Your task to perform on an android device: turn pop-ups on in chrome Image 0: 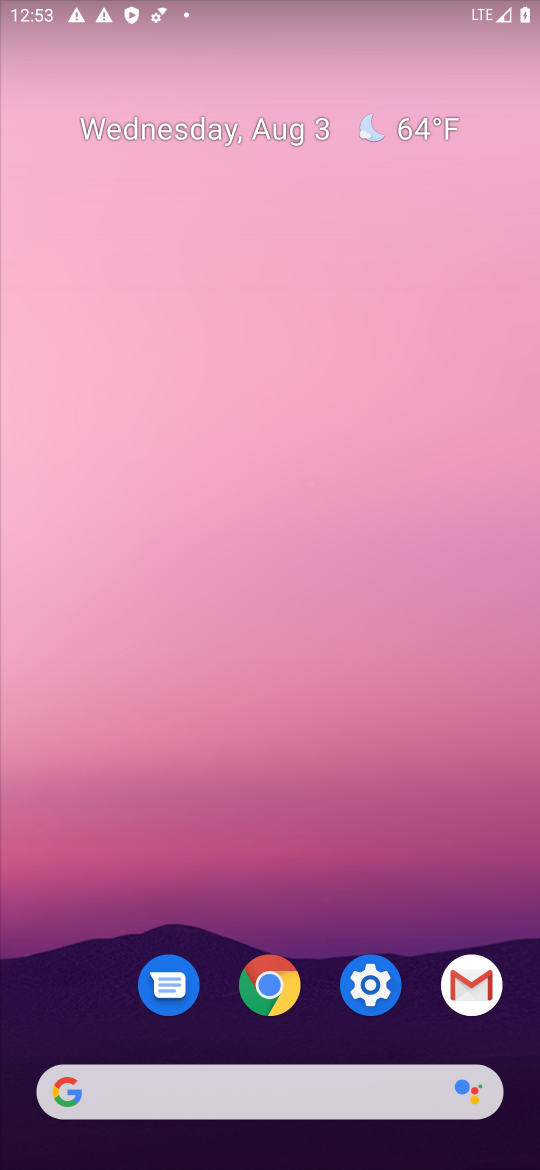
Step 0: press home button
Your task to perform on an android device: turn pop-ups on in chrome Image 1: 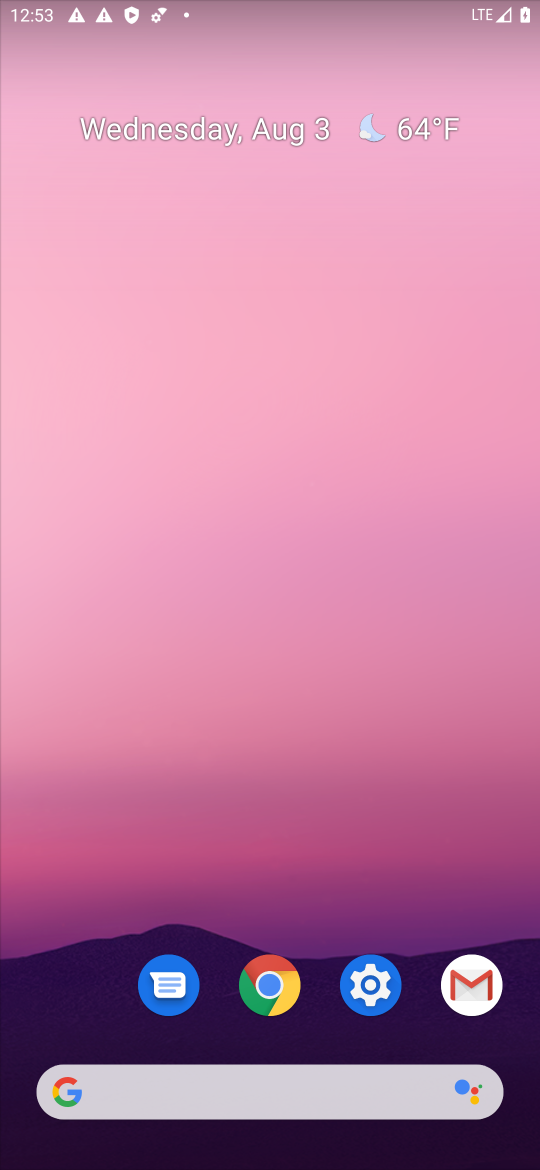
Step 1: click (265, 998)
Your task to perform on an android device: turn pop-ups on in chrome Image 2: 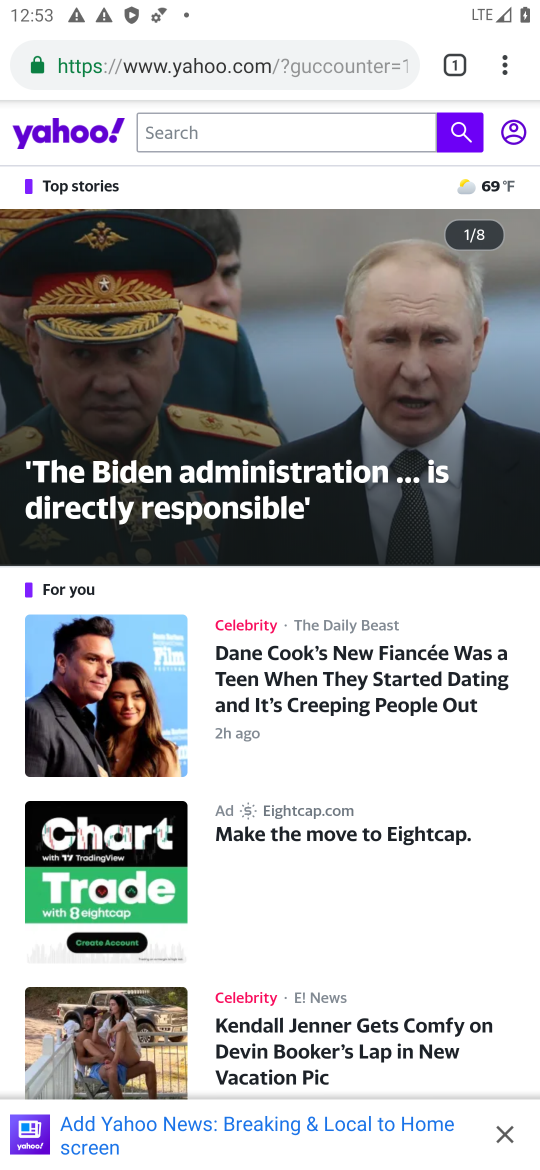
Step 2: click (499, 65)
Your task to perform on an android device: turn pop-ups on in chrome Image 3: 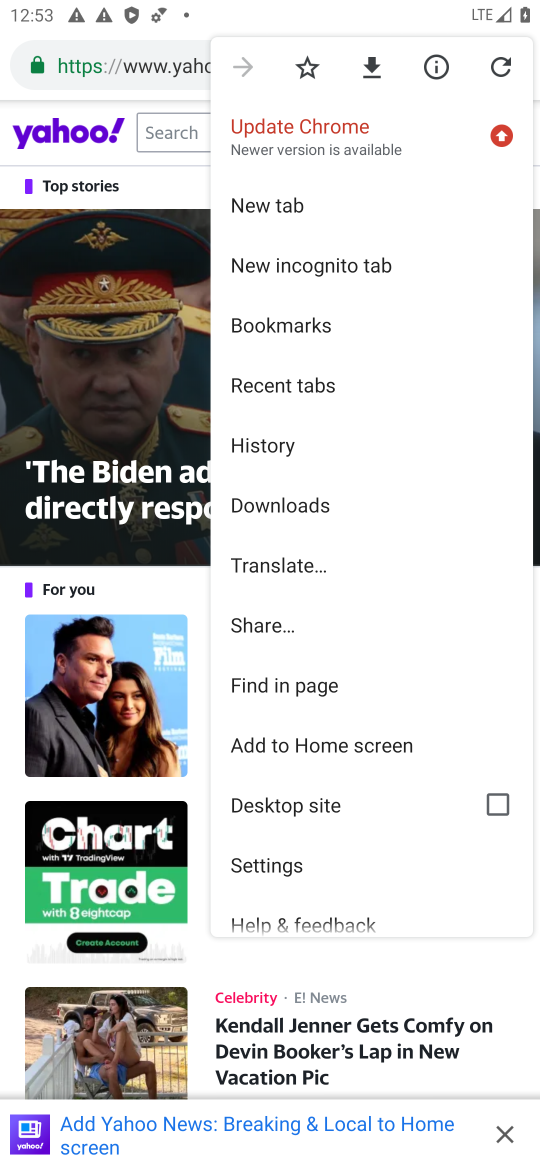
Step 3: click (266, 860)
Your task to perform on an android device: turn pop-ups on in chrome Image 4: 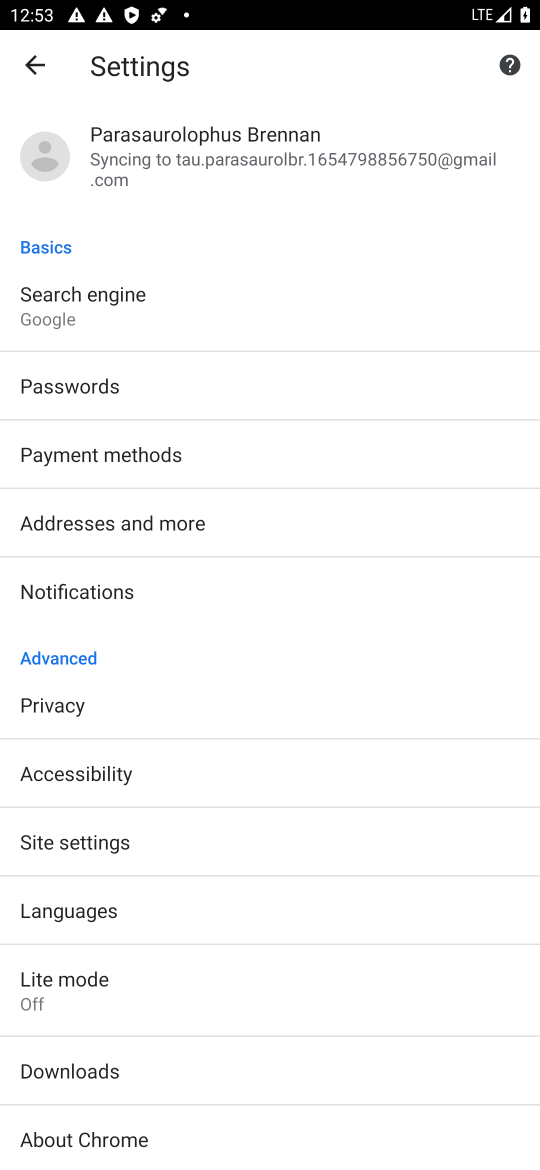
Step 4: click (84, 854)
Your task to perform on an android device: turn pop-ups on in chrome Image 5: 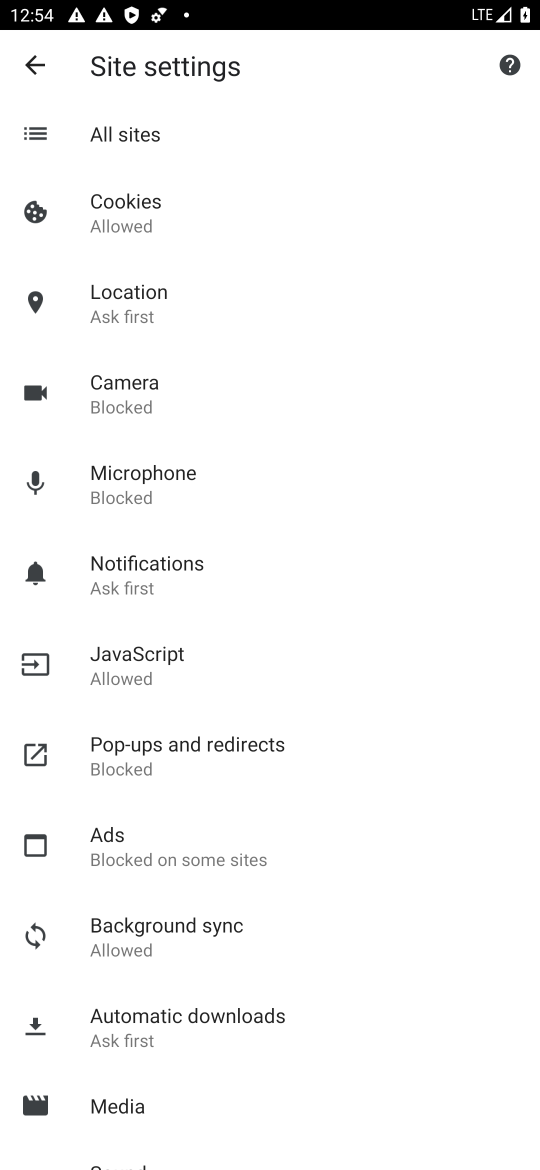
Step 5: click (195, 761)
Your task to perform on an android device: turn pop-ups on in chrome Image 6: 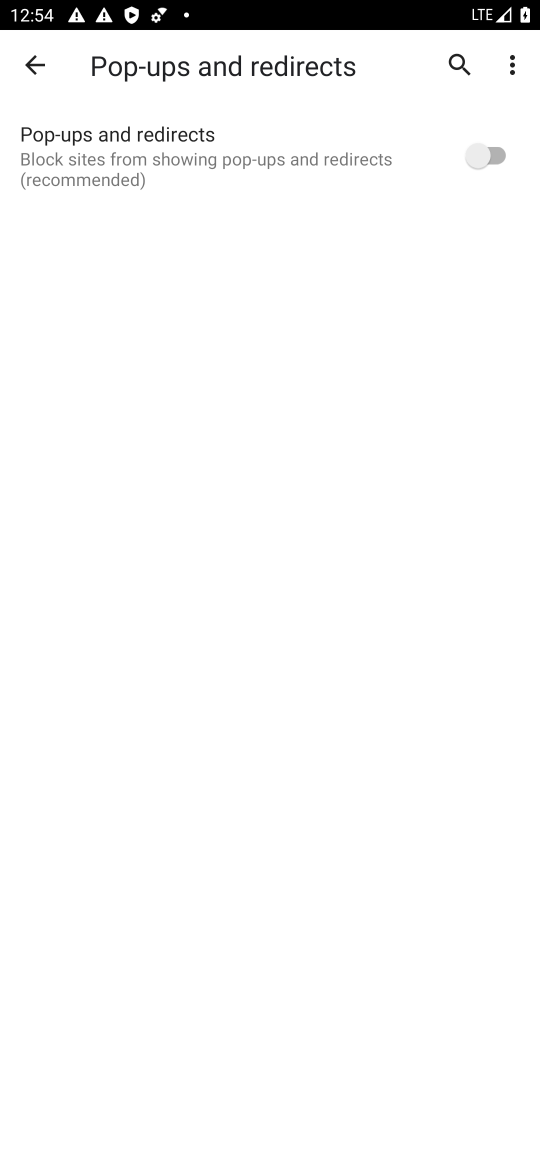
Step 6: click (475, 159)
Your task to perform on an android device: turn pop-ups on in chrome Image 7: 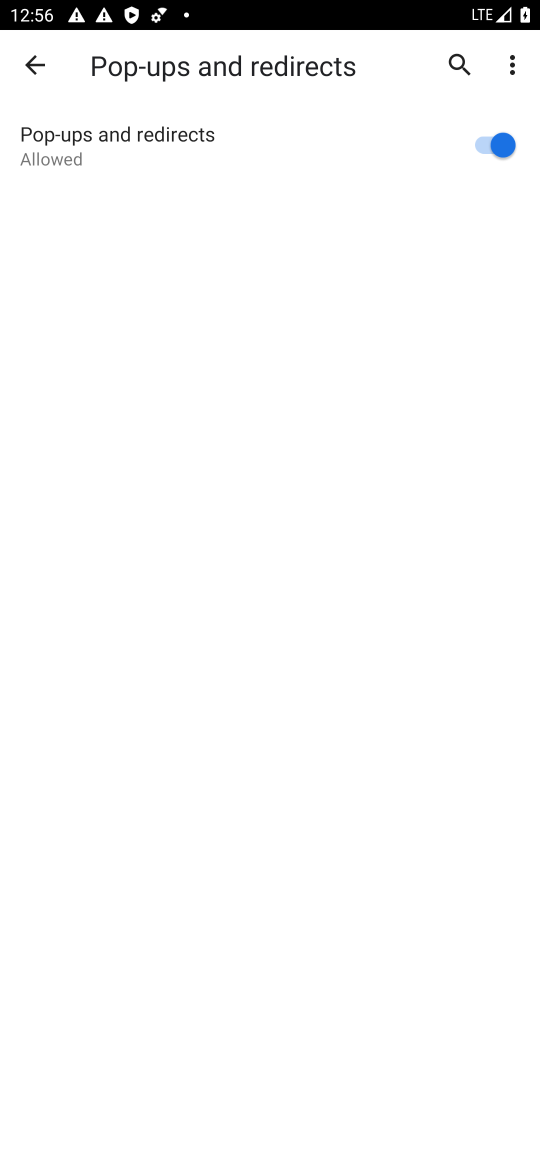
Step 7: task complete